Your task to perform on an android device: visit the assistant section in the google photos Image 0: 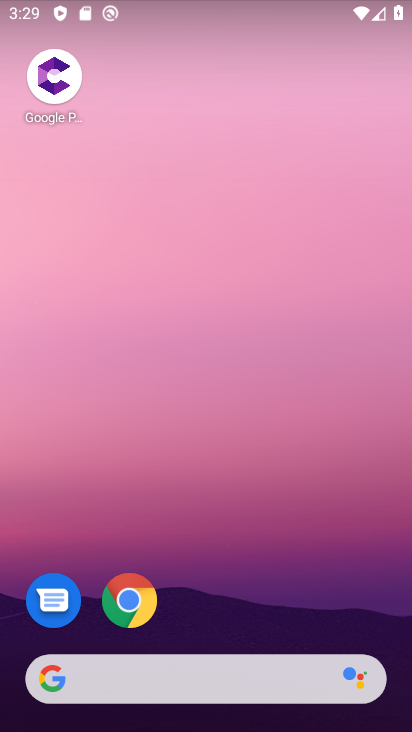
Step 0: drag from (306, 544) to (161, 49)
Your task to perform on an android device: visit the assistant section in the google photos Image 1: 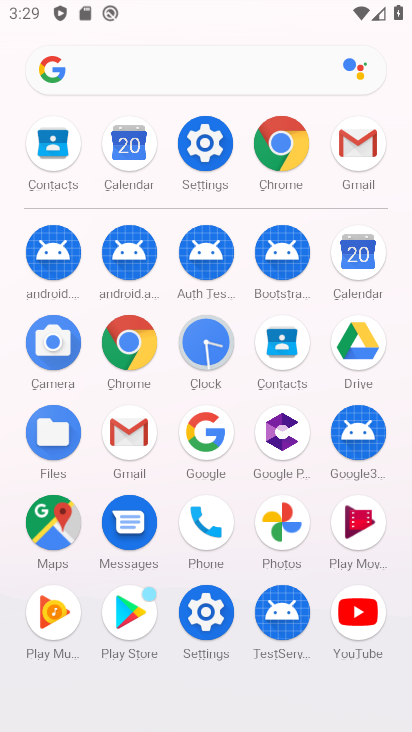
Step 1: click (266, 503)
Your task to perform on an android device: visit the assistant section in the google photos Image 2: 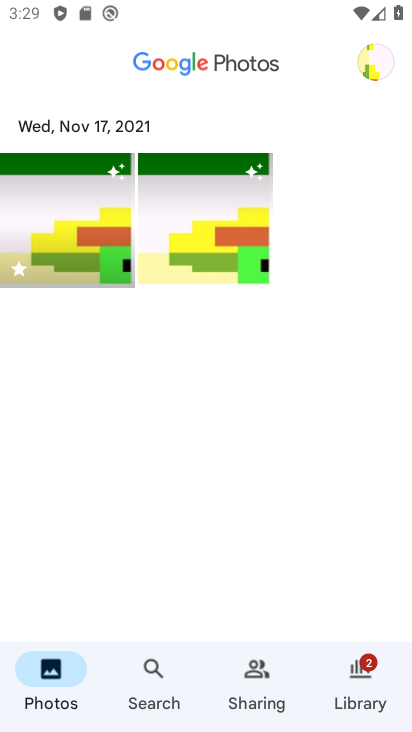
Step 2: task complete